Your task to perform on an android device: turn vacation reply on in the gmail app Image 0: 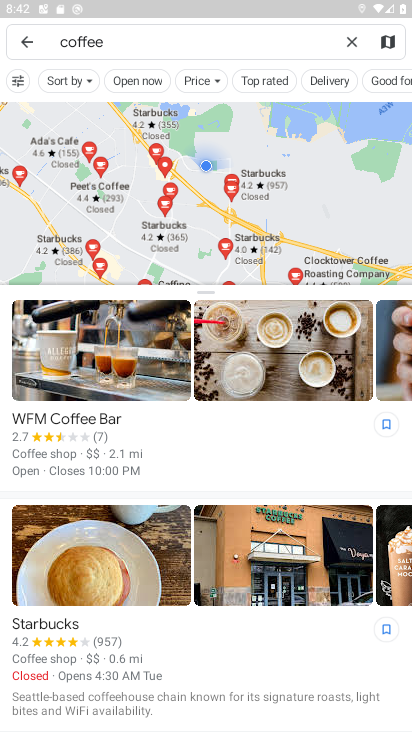
Step 0: press home button
Your task to perform on an android device: turn vacation reply on in the gmail app Image 1: 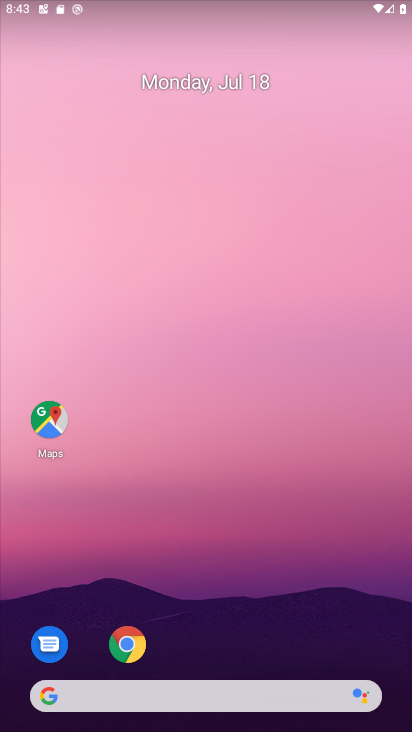
Step 1: drag from (237, 653) to (188, 180)
Your task to perform on an android device: turn vacation reply on in the gmail app Image 2: 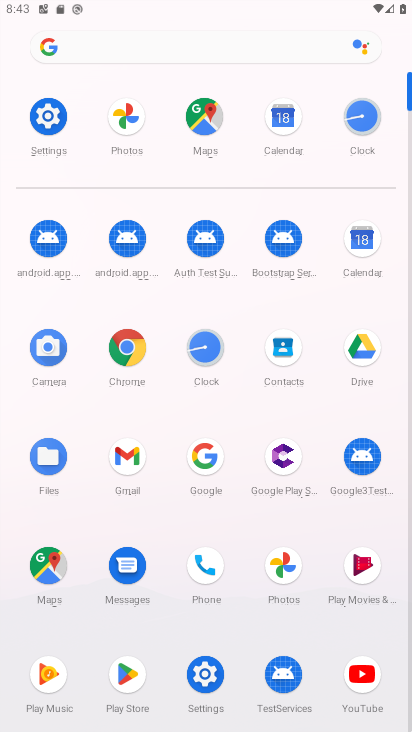
Step 2: click (125, 453)
Your task to perform on an android device: turn vacation reply on in the gmail app Image 3: 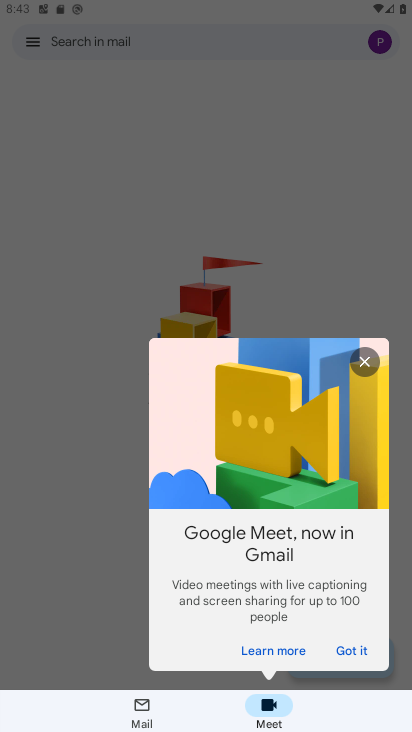
Step 3: click (357, 656)
Your task to perform on an android device: turn vacation reply on in the gmail app Image 4: 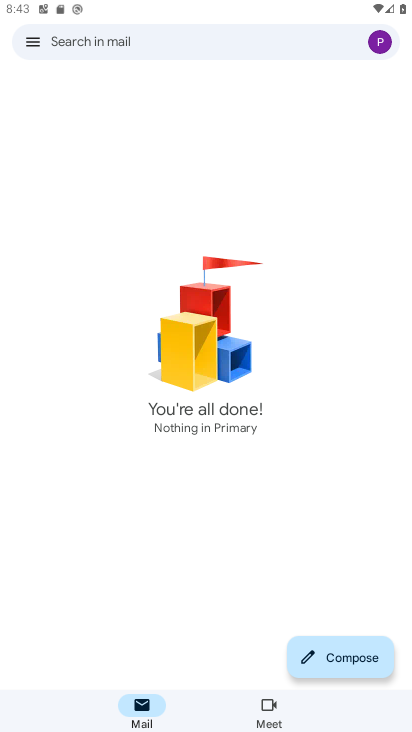
Step 4: click (31, 40)
Your task to perform on an android device: turn vacation reply on in the gmail app Image 5: 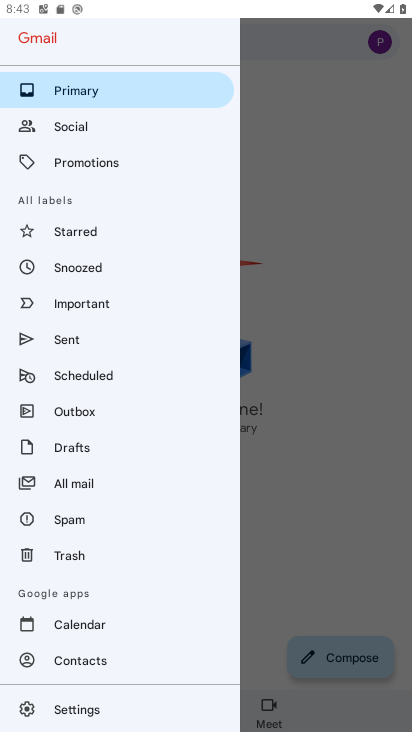
Step 5: click (98, 722)
Your task to perform on an android device: turn vacation reply on in the gmail app Image 6: 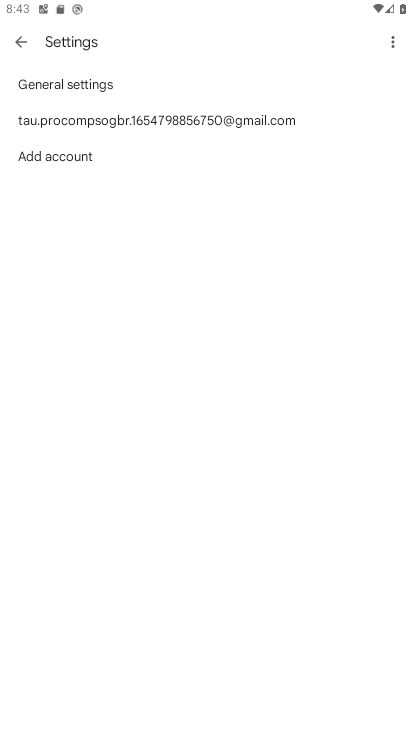
Step 6: click (167, 111)
Your task to perform on an android device: turn vacation reply on in the gmail app Image 7: 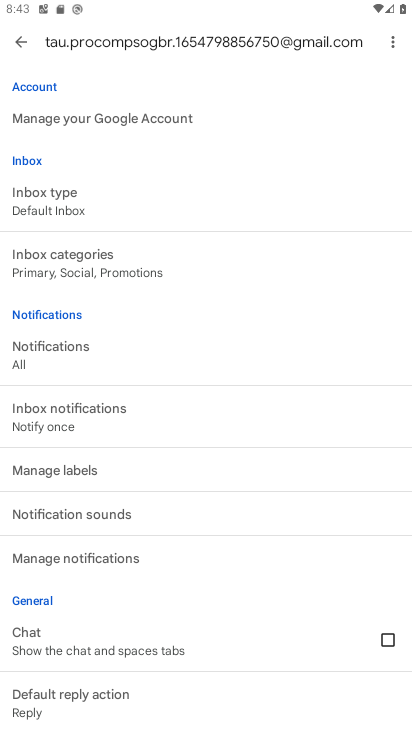
Step 7: task complete